Your task to perform on an android device: turn off sleep mode Image 0: 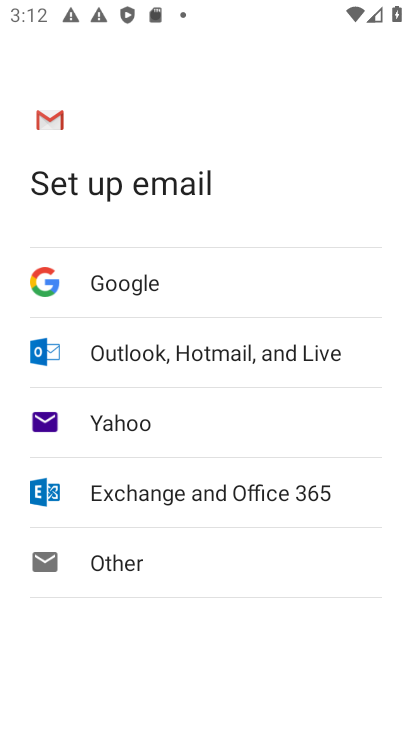
Step 0: press home button
Your task to perform on an android device: turn off sleep mode Image 1: 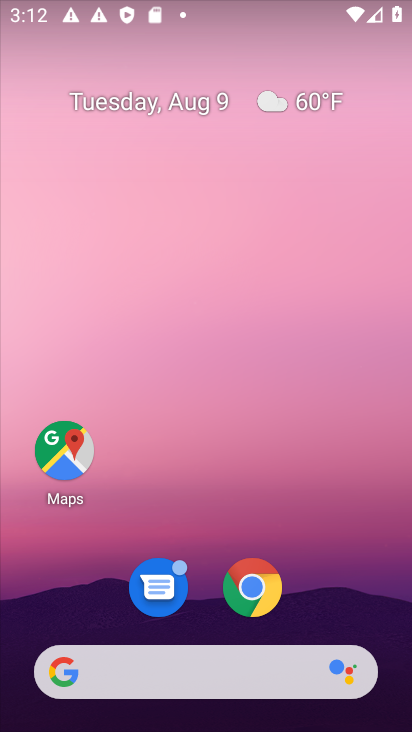
Step 1: task complete